Your task to perform on an android device: show emergency info Image 0: 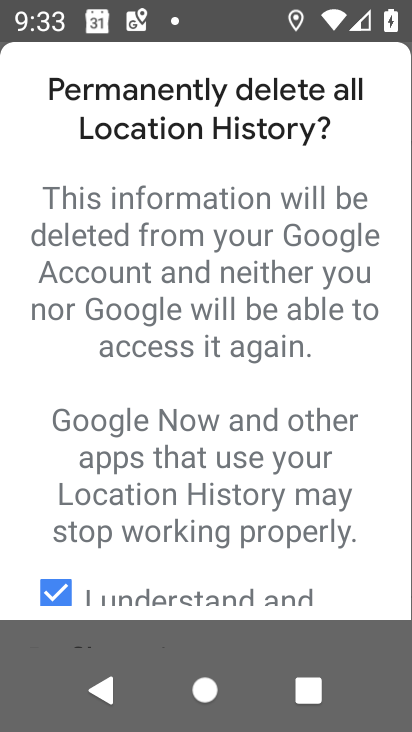
Step 0: press home button
Your task to perform on an android device: show emergency info Image 1: 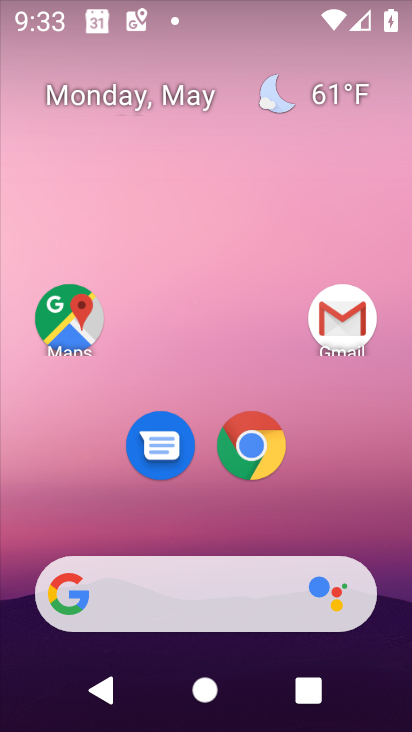
Step 1: drag from (366, 504) to (356, 113)
Your task to perform on an android device: show emergency info Image 2: 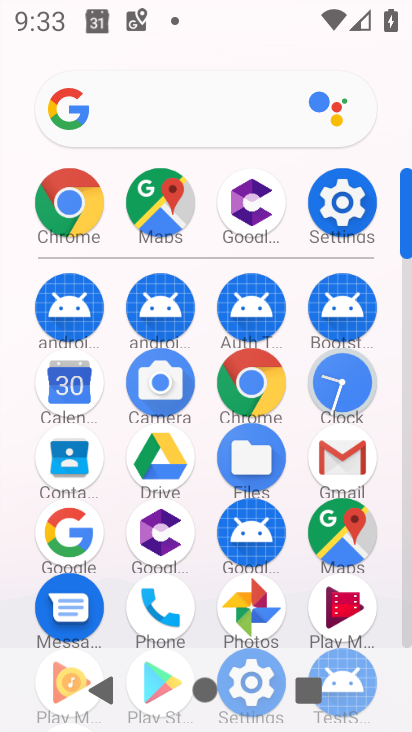
Step 2: click (359, 219)
Your task to perform on an android device: show emergency info Image 3: 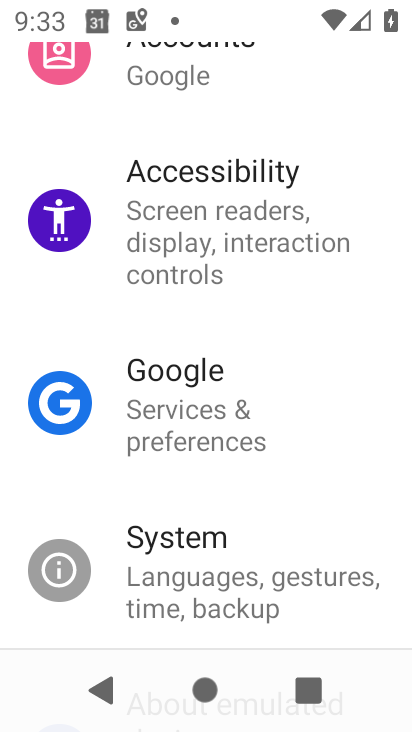
Step 3: drag from (350, 184) to (352, 299)
Your task to perform on an android device: show emergency info Image 4: 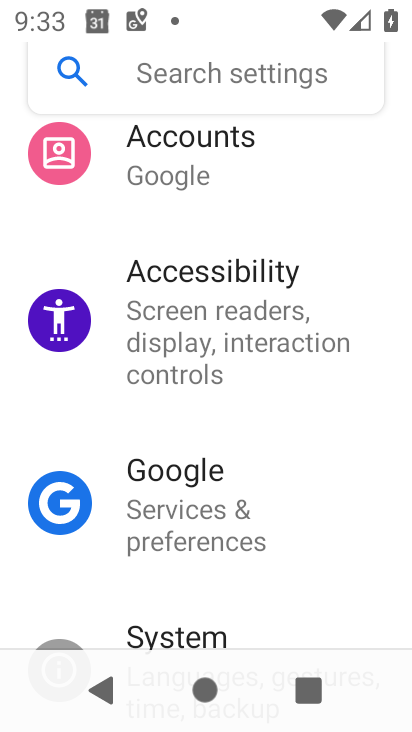
Step 4: drag from (365, 169) to (366, 347)
Your task to perform on an android device: show emergency info Image 5: 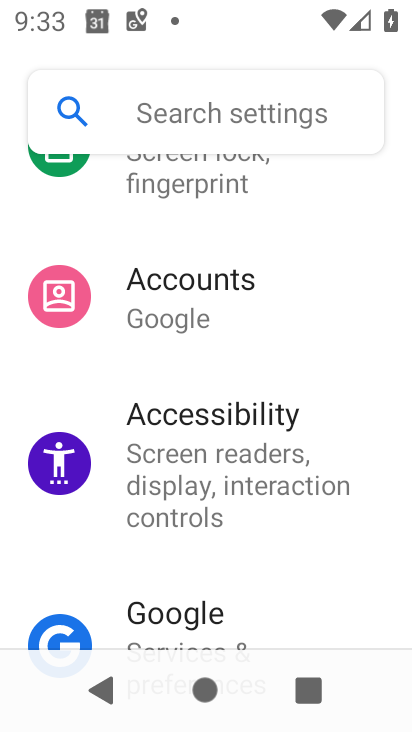
Step 5: drag from (353, 191) to (360, 337)
Your task to perform on an android device: show emergency info Image 6: 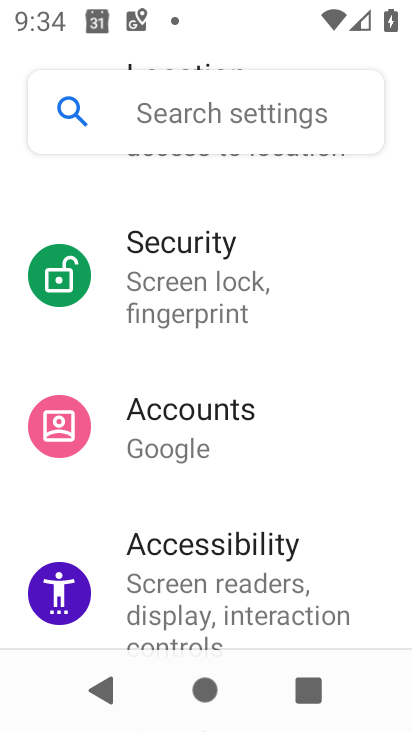
Step 6: drag from (348, 186) to (350, 317)
Your task to perform on an android device: show emergency info Image 7: 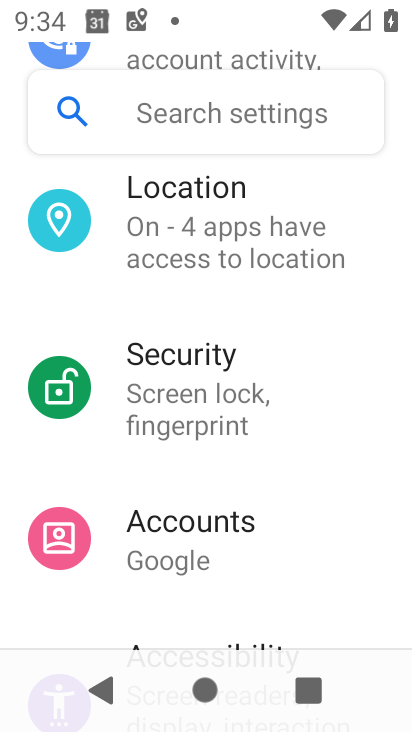
Step 7: drag from (357, 187) to (370, 330)
Your task to perform on an android device: show emergency info Image 8: 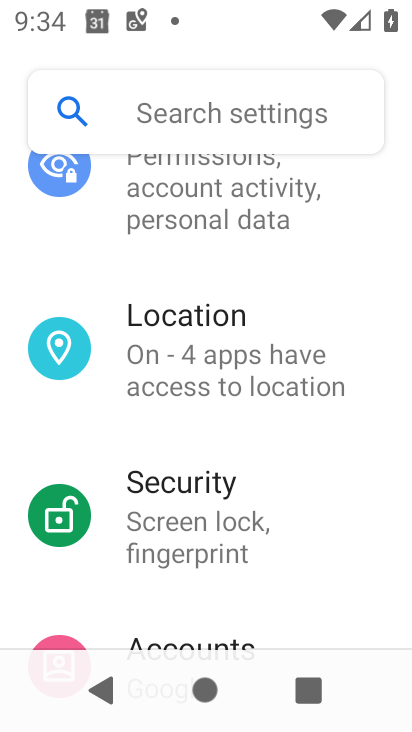
Step 8: drag from (361, 190) to (356, 344)
Your task to perform on an android device: show emergency info Image 9: 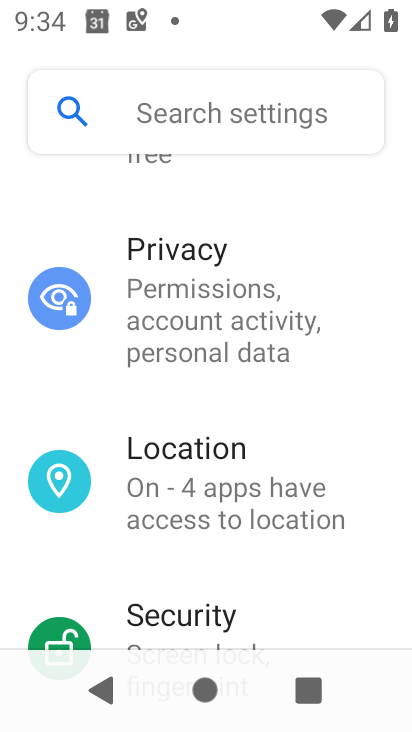
Step 9: drag from (341, 467) to (349, 270)
Your task to perform on an android device: show emergency info Image 10: 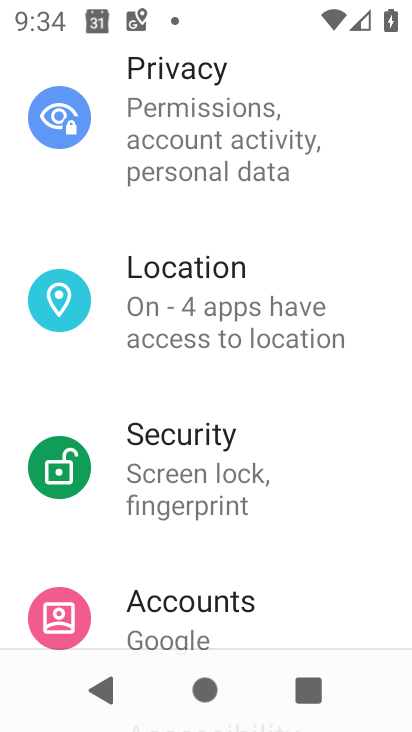
Step 10: drag from (335, 460) to (335, 292)
Your task to perform on an android device: show emergency info Image 11: 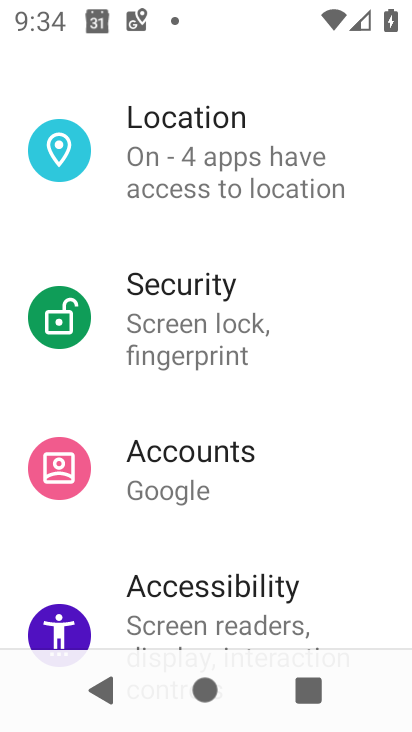
Step 11: drag from (344, 480) to (345, 308)
Your task to perform on an android device: show emergency info Image 12: 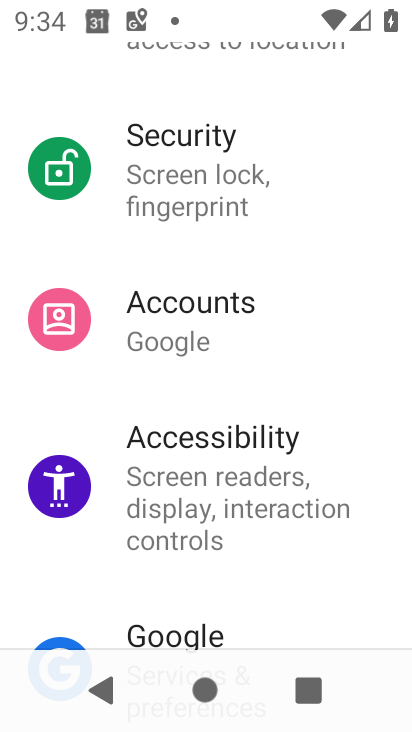
Step 12: drag from (349, 561) to (343, 378)
Your task to perform on an android device: show emergency info Image 13: 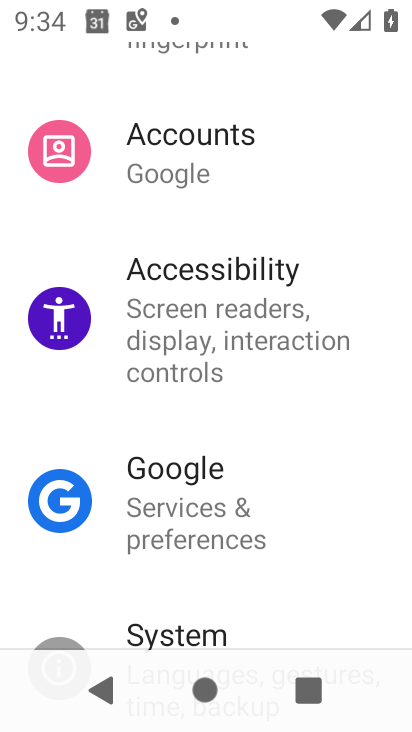
Step 13: drag from (345, 578) to (348, 378)
Your task to perform on an android device: show emergency info Image 14: 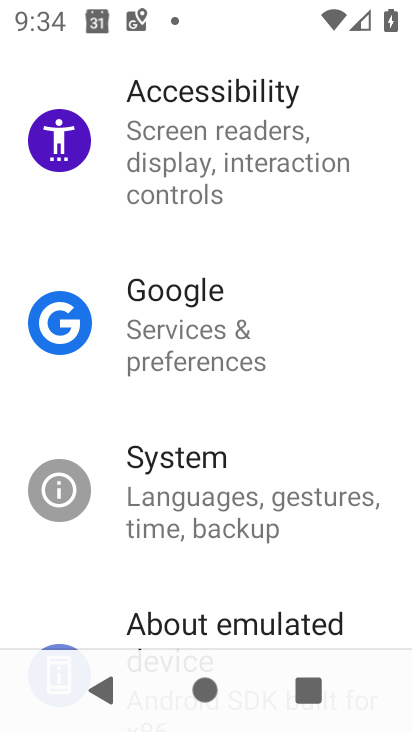
Step 14: drag from (352, 562) to (346, 386)
Your task to perform on an android device: show emergency info Image 15: 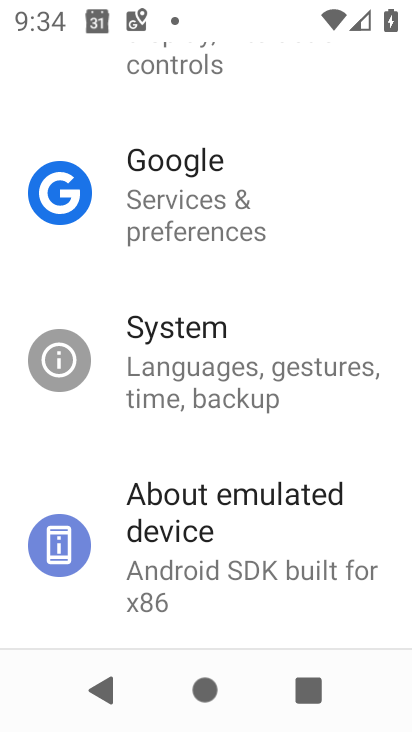
Step 15: click (253, 525)
Your task to perform on an android device: show emergency info Image 16: 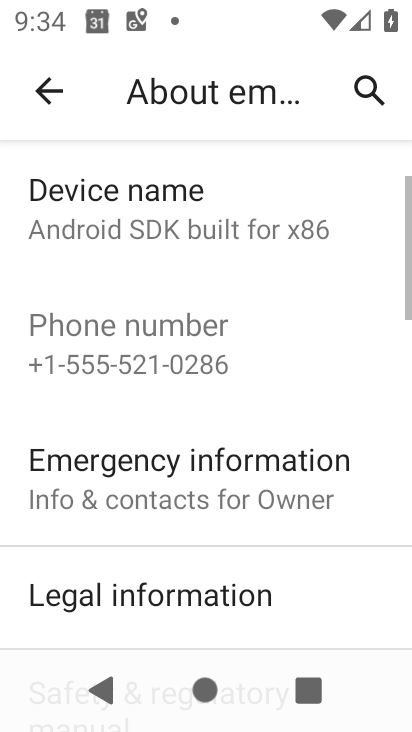
Step 16: click (323, 475)
Your task to perform on an android device: show emergency info Image 17: 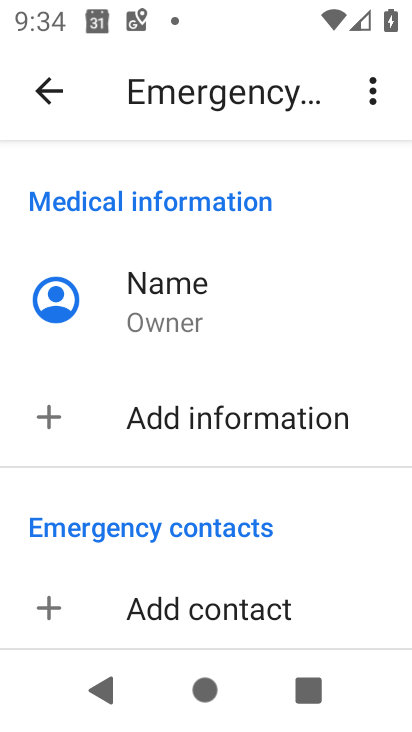
Step 17: task complete